Your task to perform on an android device: set the timer Image 0: 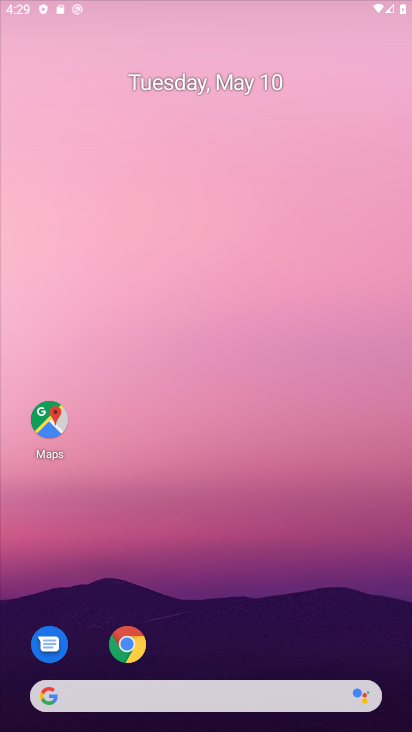
Step 0: drag from (264, 626) to (225, 77)
Your task to perform on an android device: set the timer Image 1: 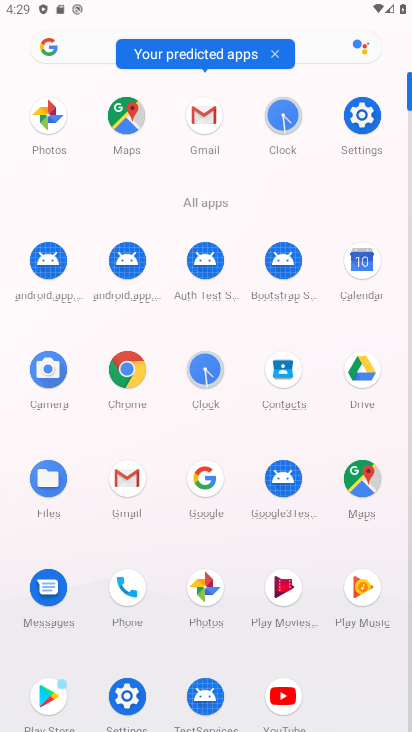
Step 1: click (277, 124)
Your task to perform on an android device: set the timer Image 2: 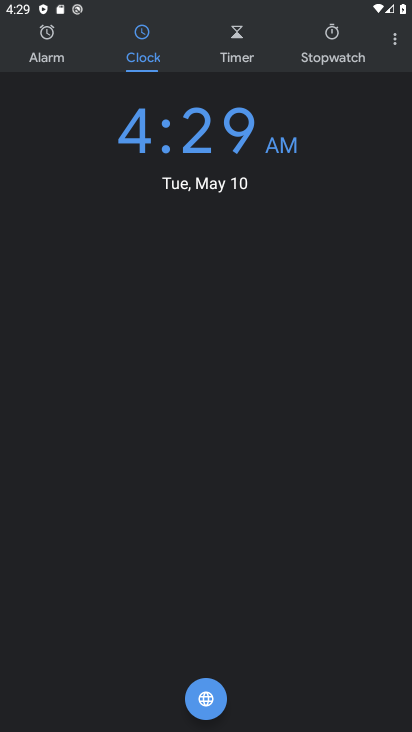
Step 2: click (238, 41)
Your task to perform on an android device: set the timer Image 3: 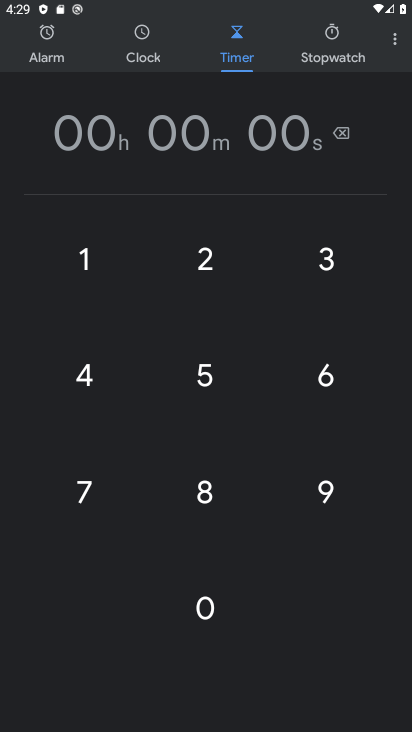
Step 3: click (141, 483)
Your task to perform on an android device: set the timer Image 4: 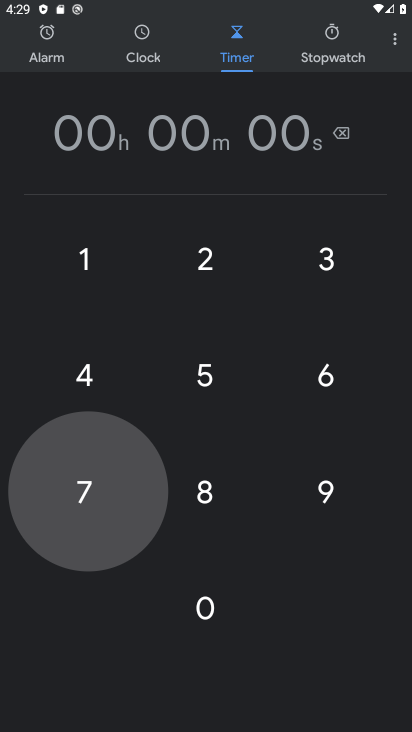
Step 4: click (208, 415)
Your task to perform on an android device: set the timer Image 5: 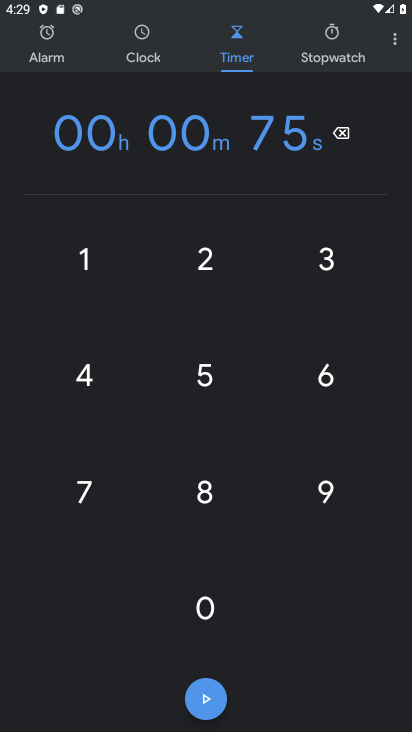
Step 5: click (313, 250)
Your task to perform on an android device: set the timer Image 6: 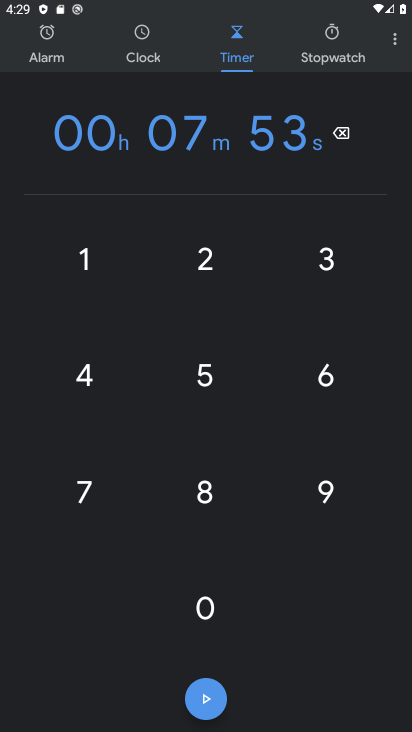
Step 6: click (82, 246)
Your task to perform on an android device: set the timer Image 7: 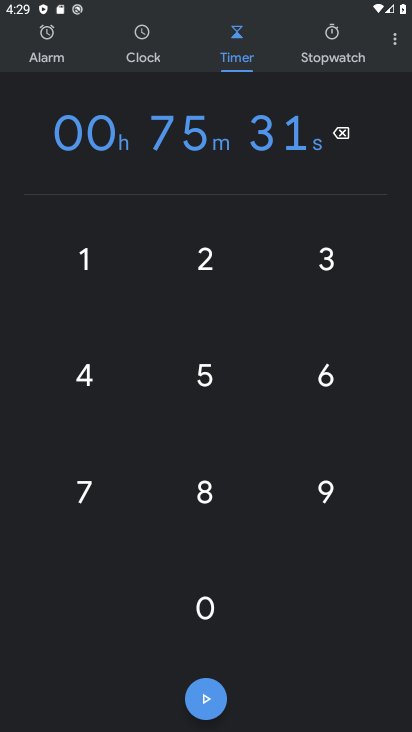
Step 7: click (219, 365)
Your task to perform on an android device: set the timer Image 8: 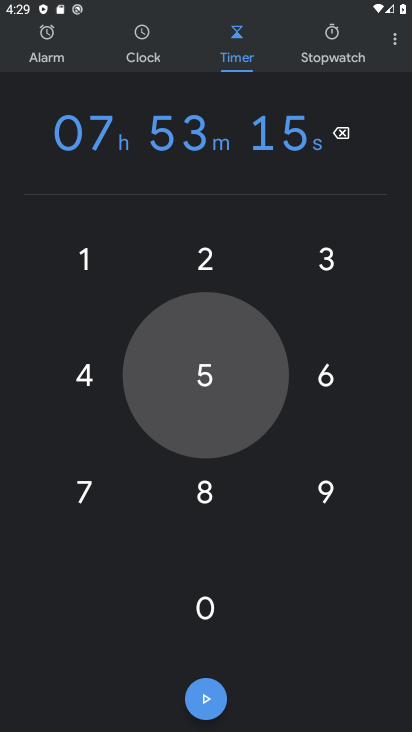
Step 8: click (305, 481)
Your task to perform on an android device: set the timer Image 9: 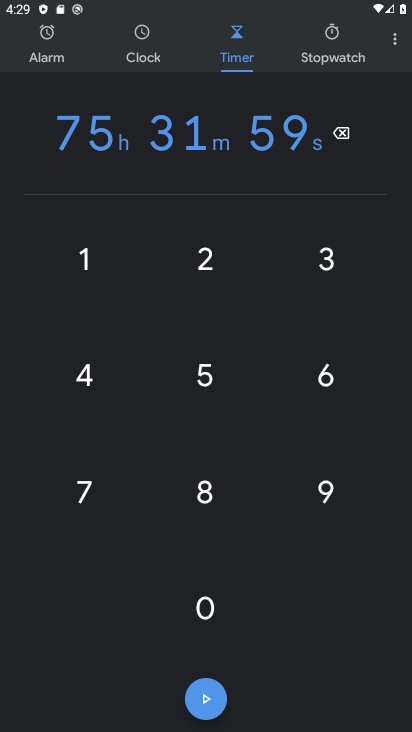
Step 9: click (210, 704)
Your task to perform on an android device: set the timer Image 10: 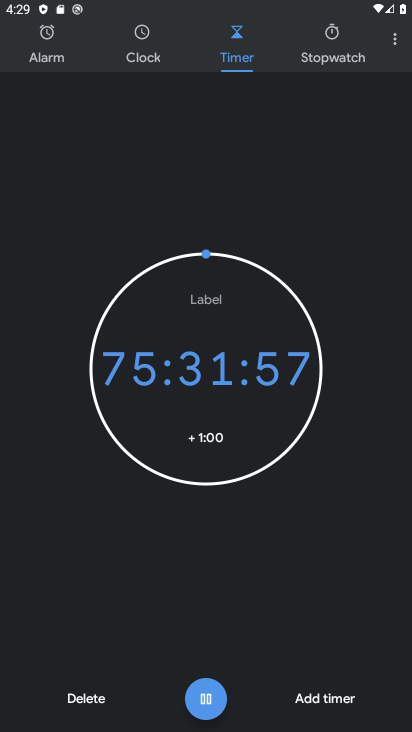
Step 10: task complete